Your task to perform on an android device: Open Youtube and go to the subscriptions tab Image 0: 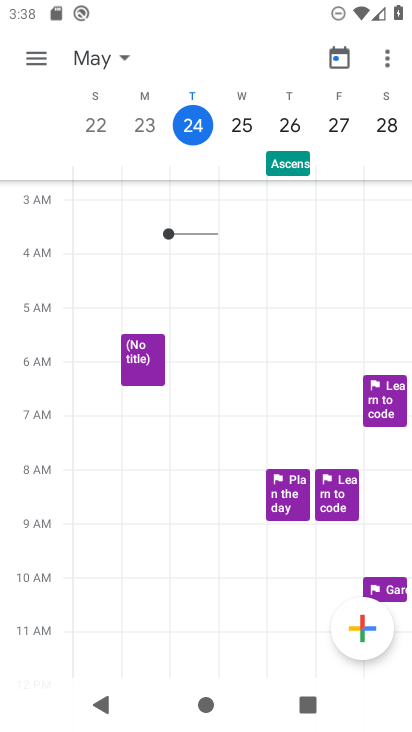
Step 0: press home button
Your task to perform on an android device: Open Youtube and go to the subscriptions tab Image 1: 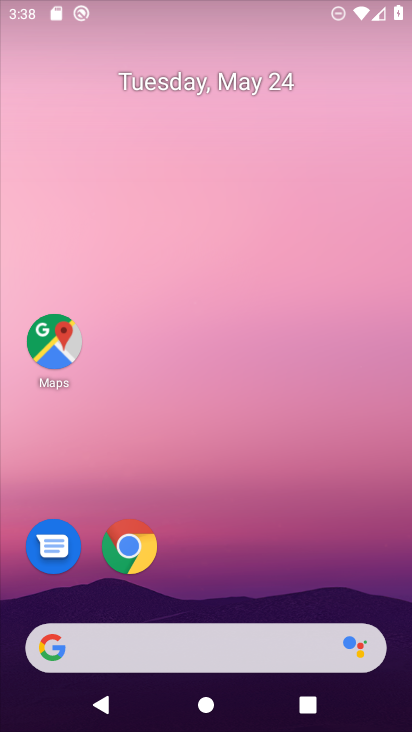
Step 1: drag from (306, 538) to (173, 54)
Your task to perform on an android device: Open Youtube and go to the subscriptions tab Image 2: 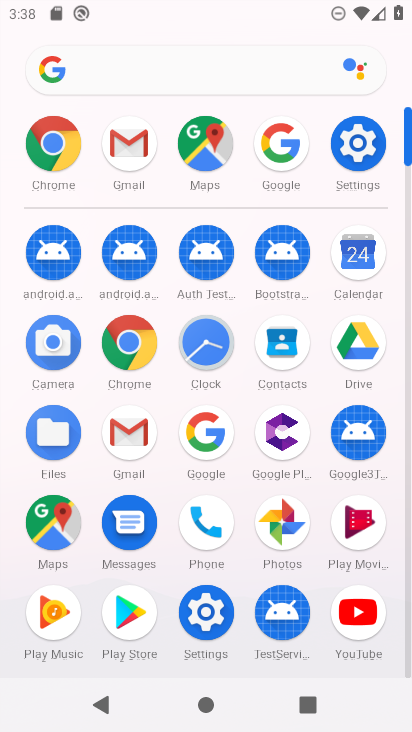
Step 2: click (365, 618)
Your task to perform on an android device: Open Youtube and go to the subscriptions tab Image 3: 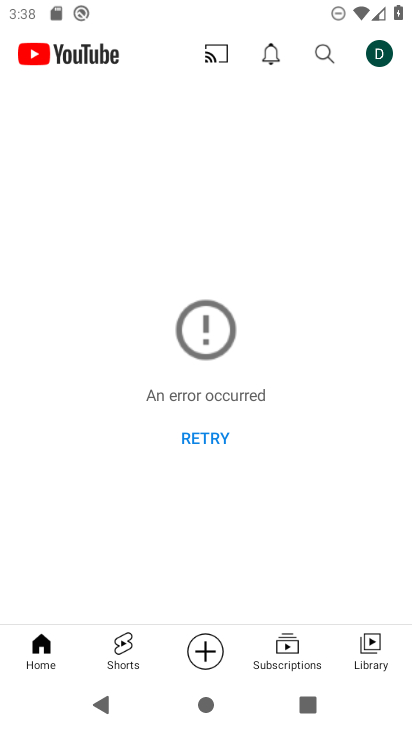
Step 3: click (304, 642)
Your task to perform on an android device: Open Youtube and go to the subscriptions tab Image 4: 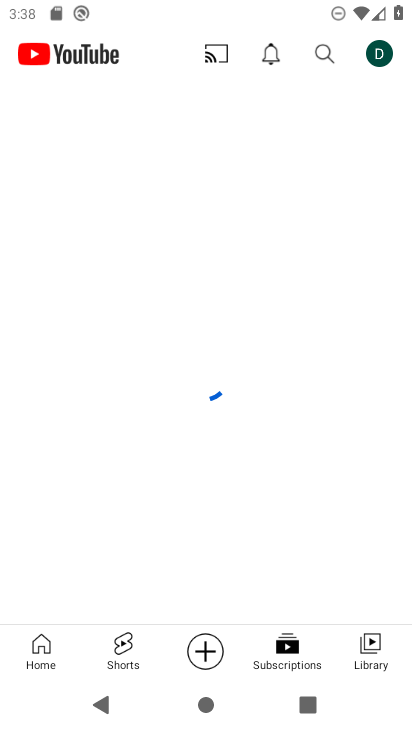
Step 4: task complete